Your task to perform on an android device: turn off wifi Image 0: 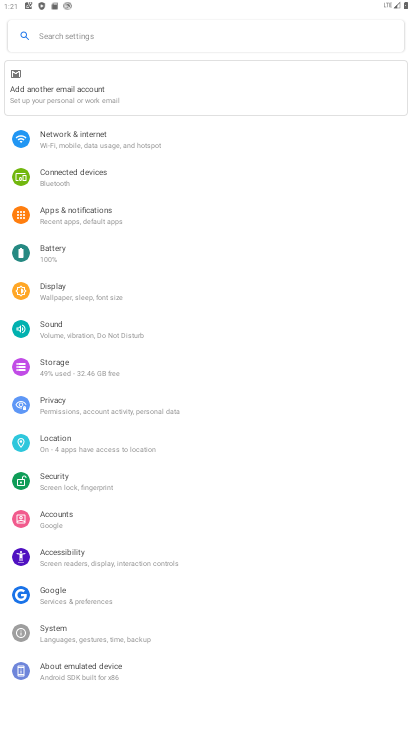
Step 0: click (89, 135)
Your task to perform on an android device: turn off wifi Image 1: 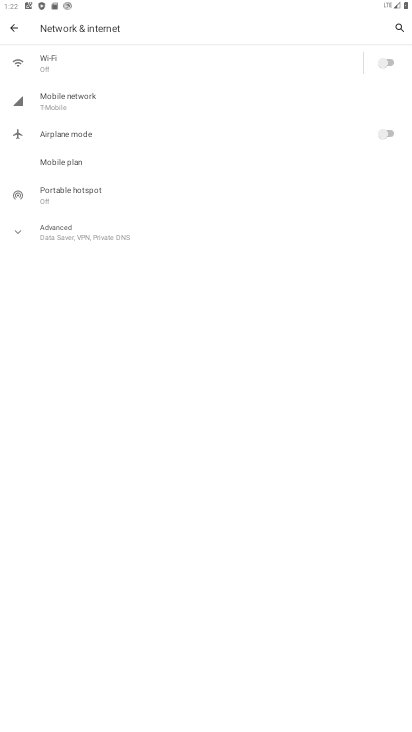
Step 1: task complete